Your task to perform on an android device: toggle javascript in the chrome app Image 0: 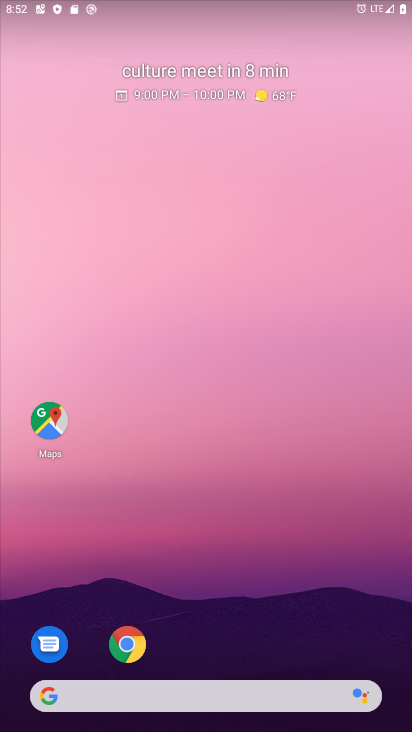
Step 0: drag from (246, 711) to (205, 82)
Your task to perform on an android device: toggle javascript in the chrome app Image 1: 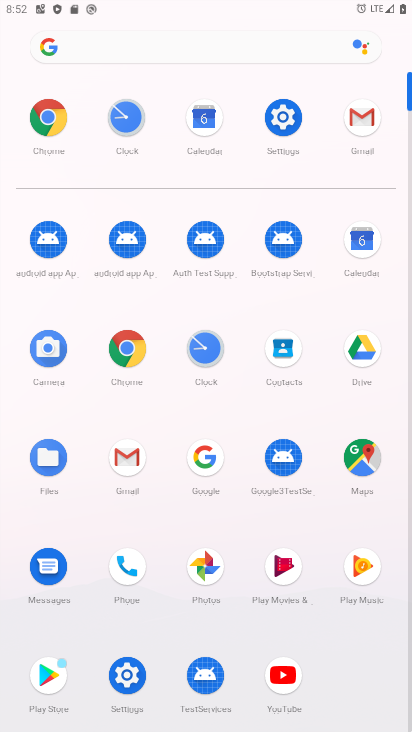
Step 1: click (64, 117)
Your task to perform on an android device: toggle javascript in the chrome app Image 2: 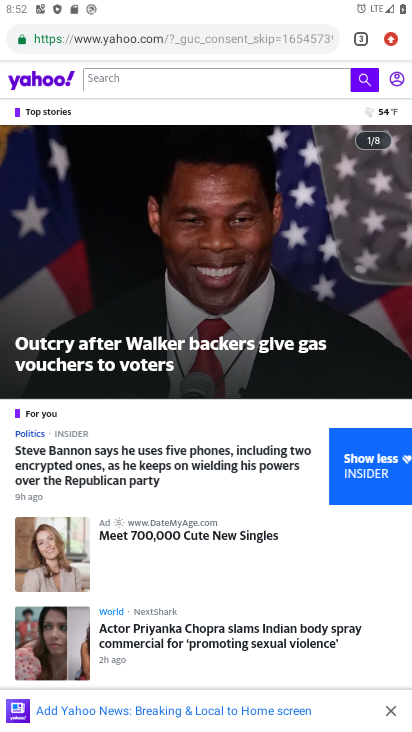
Step 2: click (387, 31)
Your task to perform on an android device: toggle javascript in the chrome app Image 3: 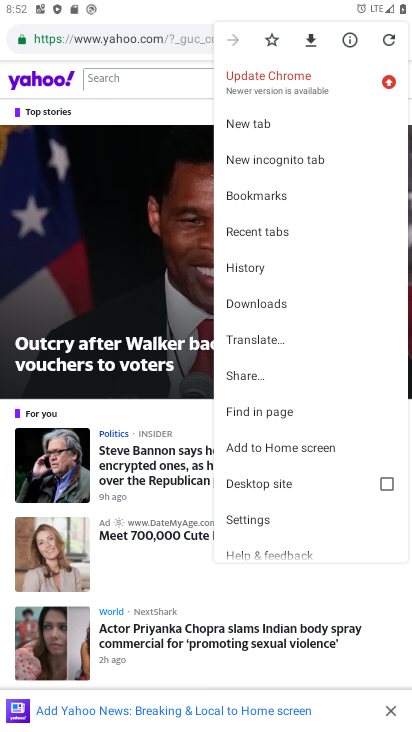
Step 3: click (252, 516)
Your task to perform on an android device: toggle javascript in the chrome app Image 4: 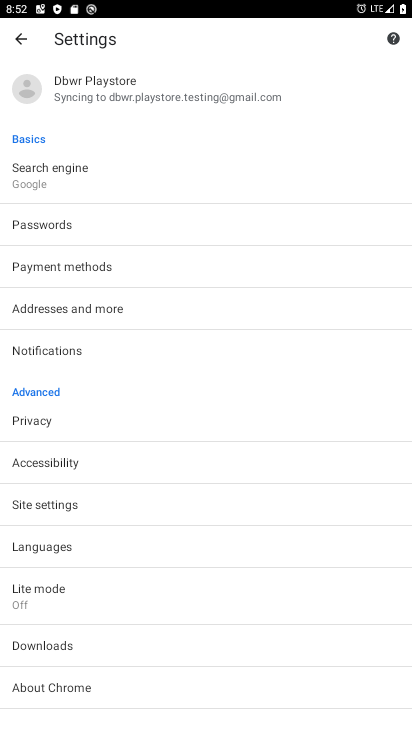
Step 4: click (54, 505)
Your task to perform on an android device: toggle javascript in the chrome app Image 5: 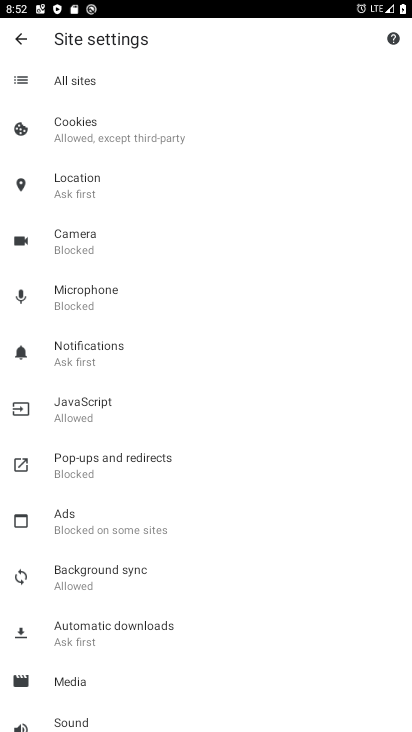
Step 5: click (88, 403)
Your task to perform on an android device: toggle javascript in the chrome app Image 6: 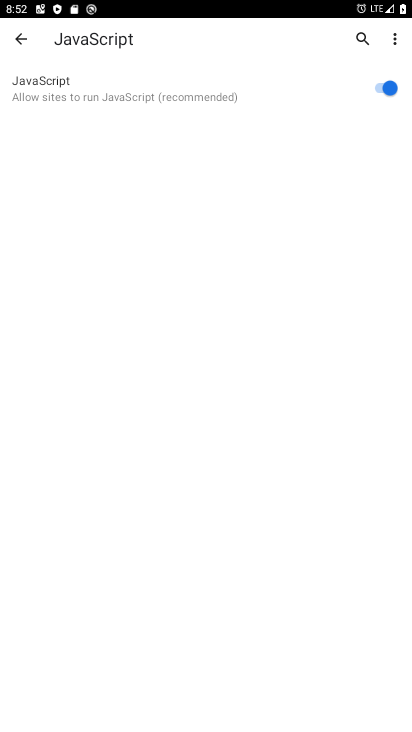
Step 6: task complete